Your task to perform on an android device: turn off smart reply in the gmail app Image 0: 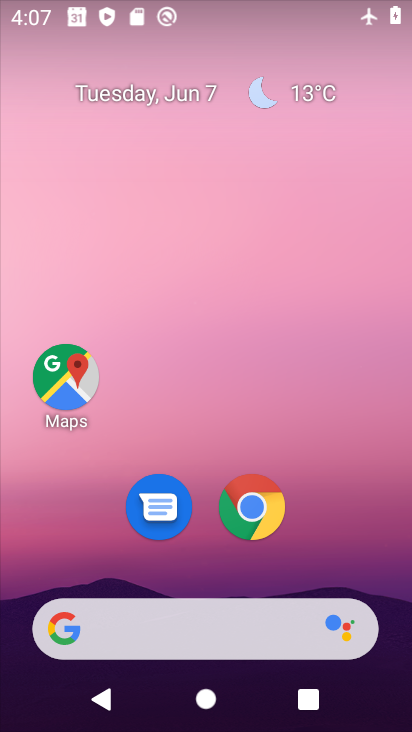
Step 0: drag from (385, 590) to (318, 75)
Your task to perform on an android device: turn off smart reply in the gmail app Image 1: 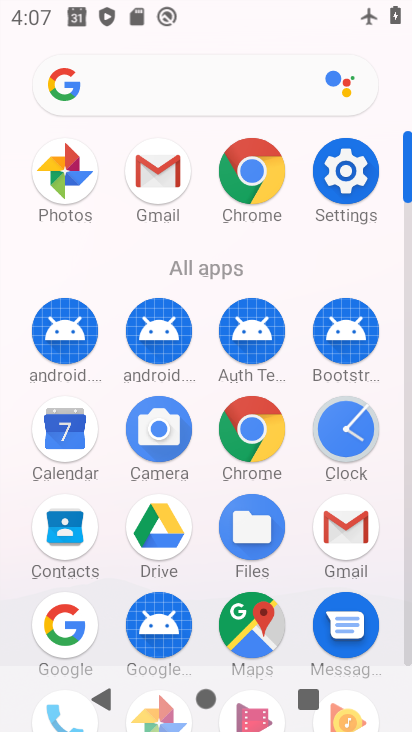
Step 1: drag from (2, 565) to (13, 226)
Your task to perform on an android device: turn off smart reply in the gmail app Image 2: 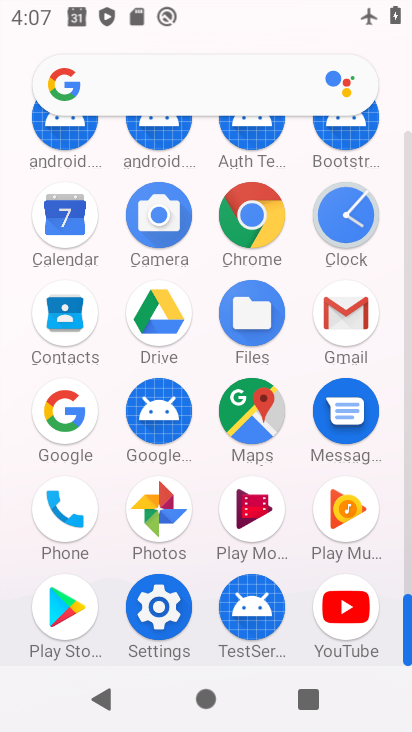
Step 2: click (350, 306)
Your task to perform on an android device: turn off smart reply in the gmail app Image 3: 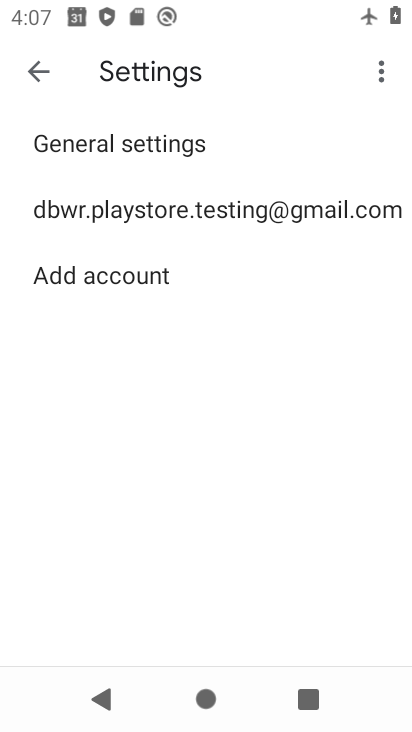
Step 3: click (41, 90)
Your task to perform on an android device: turn off smart reply in the gmail app Image 4: 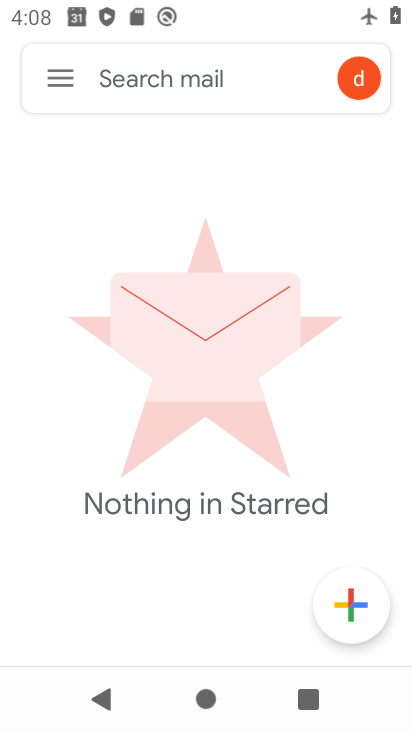
Step 4: click (47, 77)
Your task to perform on an android device: turn off smart reply in the gmail app Image 5: 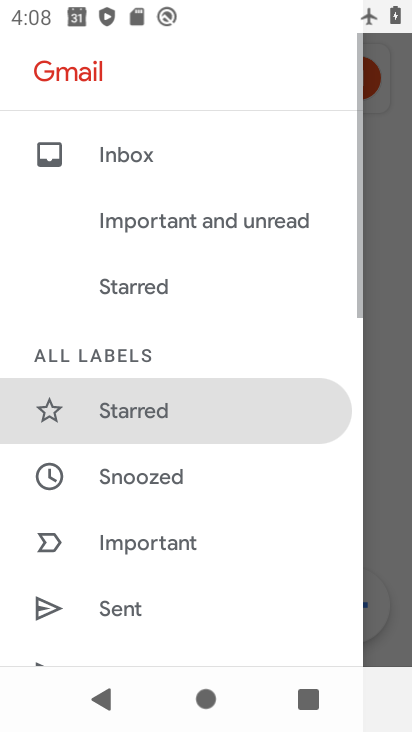
Step 5: drag from (150, 556) to (237, 179)
Your task to perform on an android device: turn off smart reply in the gmail app Image 6: 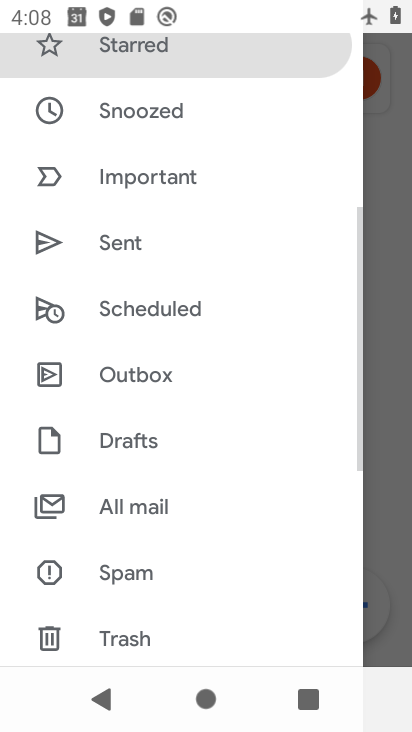
Step 6: drag from (228, 625) to (237, 210)
Your task to perform on an android device: turn off smart reply in the gmail app Image 7: 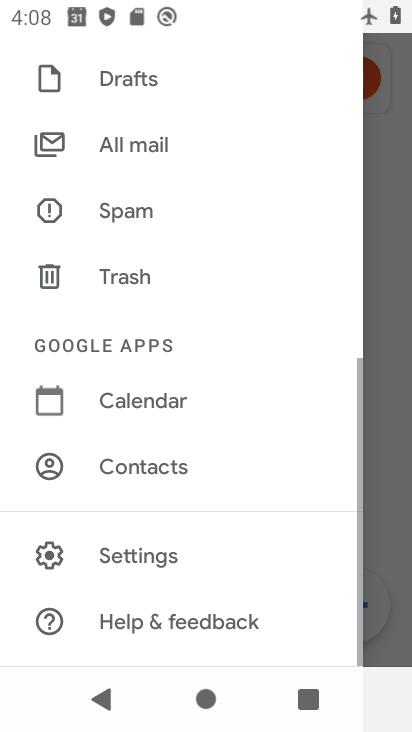
Step 7: drag from (201, 519) to (231, 251)
Your task to perform on an android device: turn off smart reply in the gmail app Image 8: 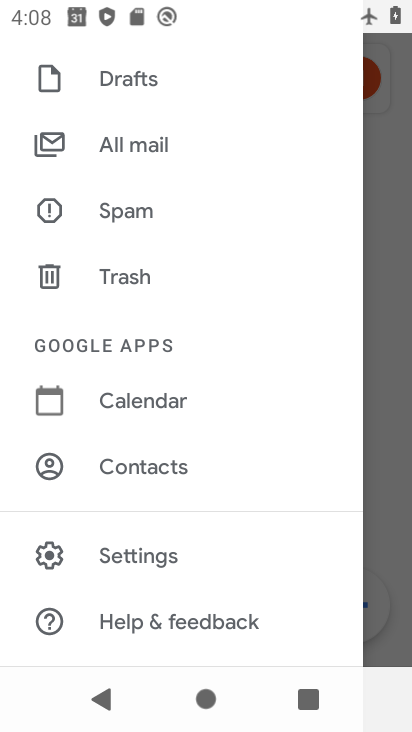
Step 8: click (136, 557)
Your task to perform on an android device: turn off smart reply in the gmail app Image 9: 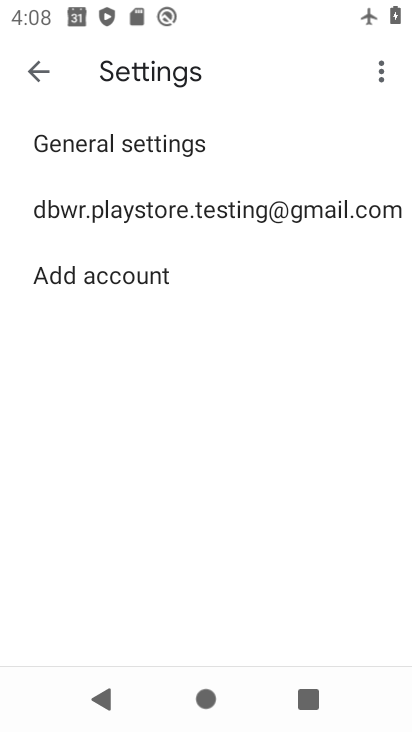
Step 9: click (217, 218)
Your task to perform on an android device: turn off smart reply in the gmail app Image 10: 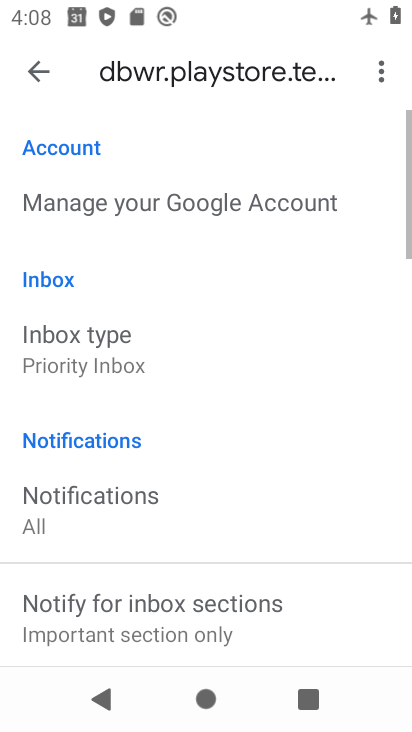
Step 10: drag from (252, 530) to (314, 79)
Your task to perform on an android device: turn off smart reply in the gmail app Image 11: 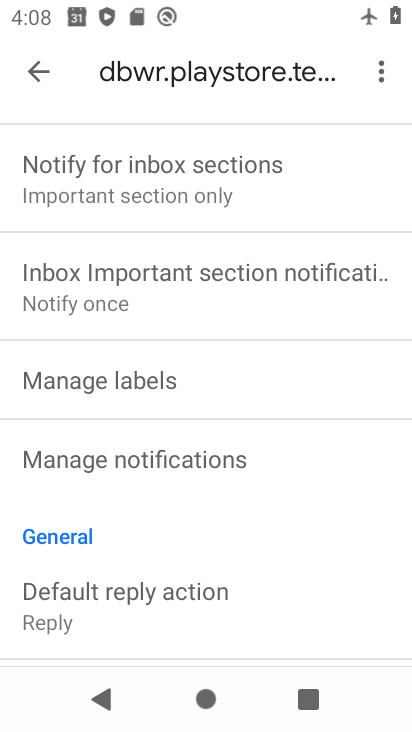
Step 11: drag from (302, 539) to (342, 109)
Your task to perform on an android device: turn off smart reply in the gmail app Image 12: 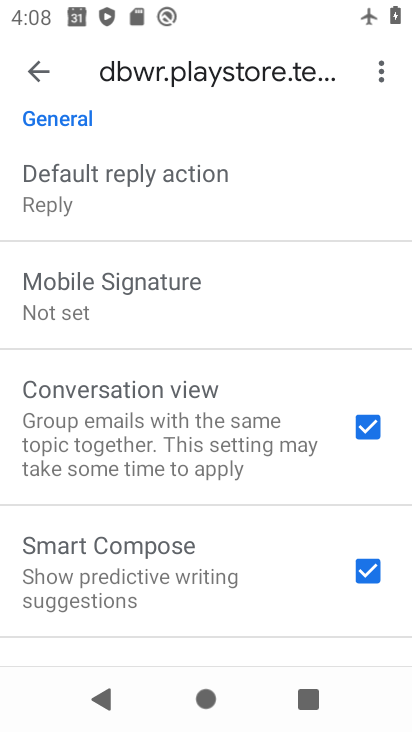
Step 12: drag from (281, 613) to (307, 146)
Your task to perform on an android device: turn off smart reply in the gmail app Image 13: 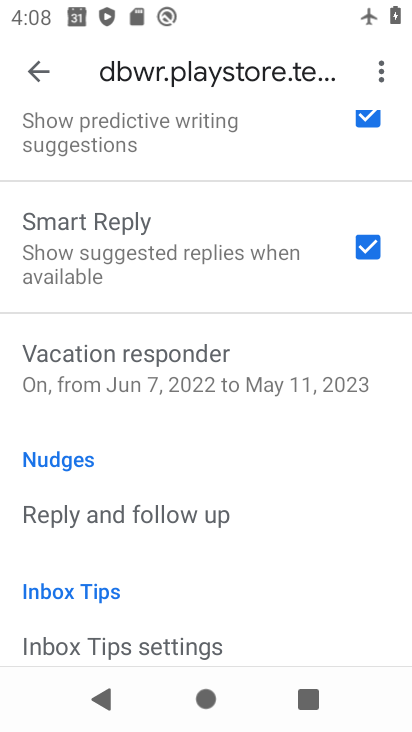
Step 13: drag from (252, 528) to (270, 144)
Your task to perform on an android device: turn off smart reply in the gmail app Image 14: 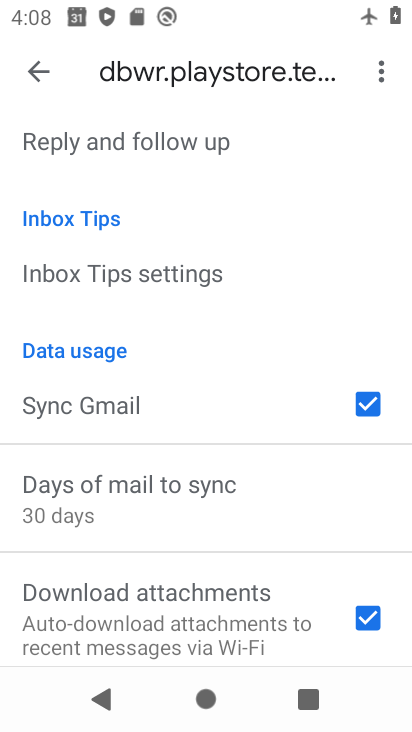
Step 14: drag from (233, 556) to (290, 116)
Your task to perform on an android device: turn off smart reply in the gmail app Image 15: 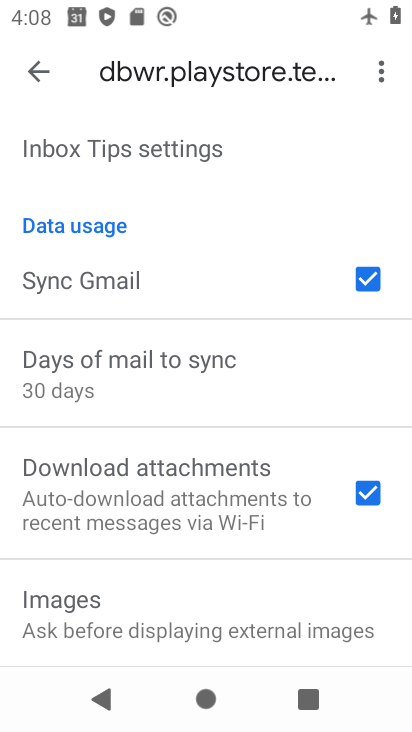
Step 15: drag from (273, 257) to (270, 591)
Your task to perform on an android device: turn off smart reply in the gmail app Image 16: 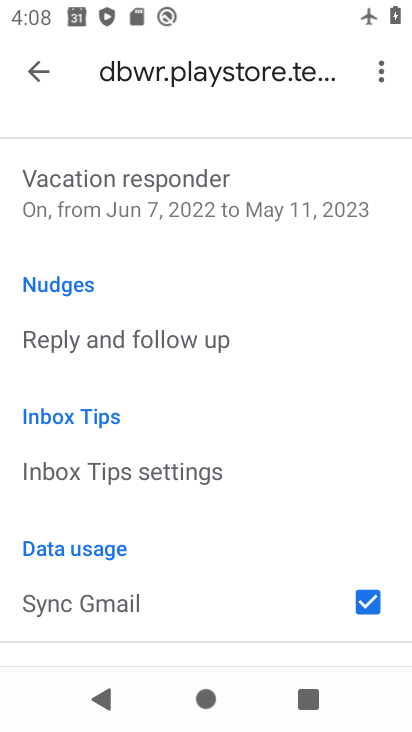
Step 16: drag from (280, 249) to (268, 625)
Your task to perform on an android device: turn off smart reply in the gmail app Image 17: 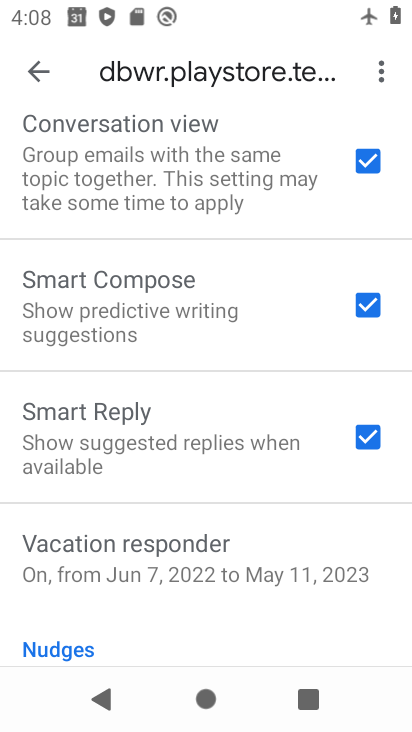
Step 17: drag from (267, 183) to (262, 563)
Your task to perform on an android device: turn off smart reply in the gmail app Image 18: 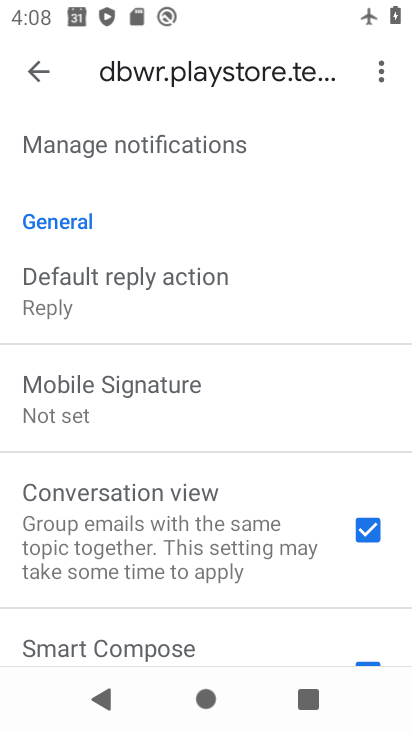
Step 18: drag from (262, 563) to (327, 194)
Your task to perform on an android device: turn off smart reply in the gmail app Image 19: 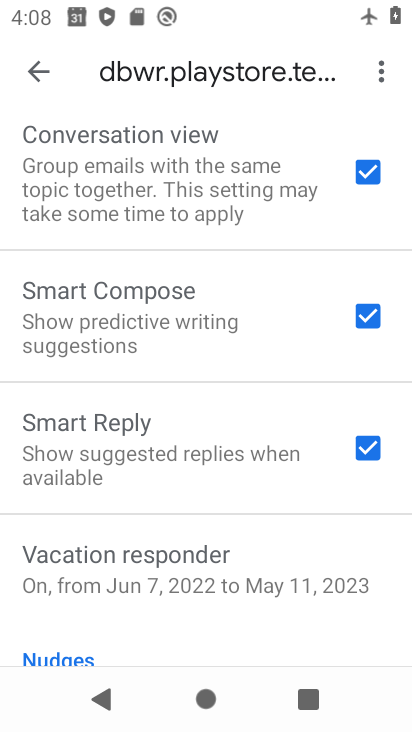
Step 19: click (376, 442)
Your task to perform on an android device: turn off smart reply in the gmail app Image 20: 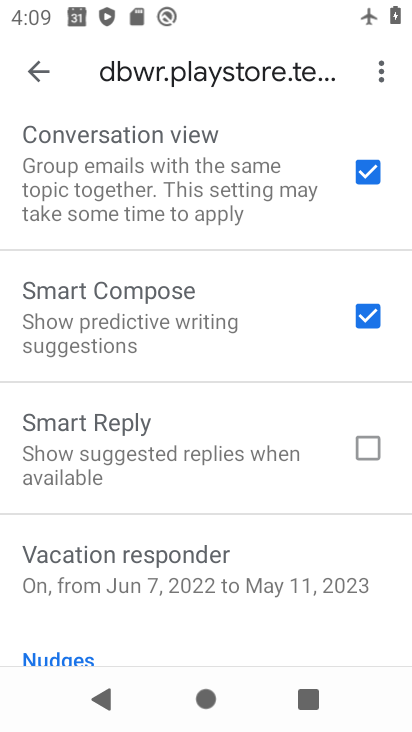
Step 20: task complete